Your task to perform on an android device: check out phone information Image 0: 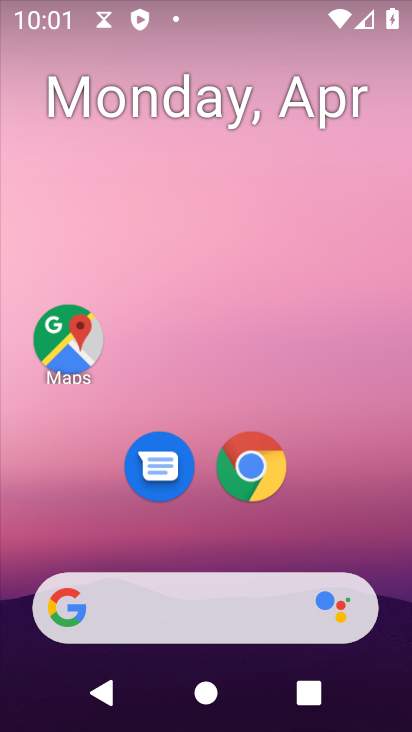
Step 0: drag from (233, 553) to (266, 87)
Your task to perform on an android device: check out phone information Image 1: 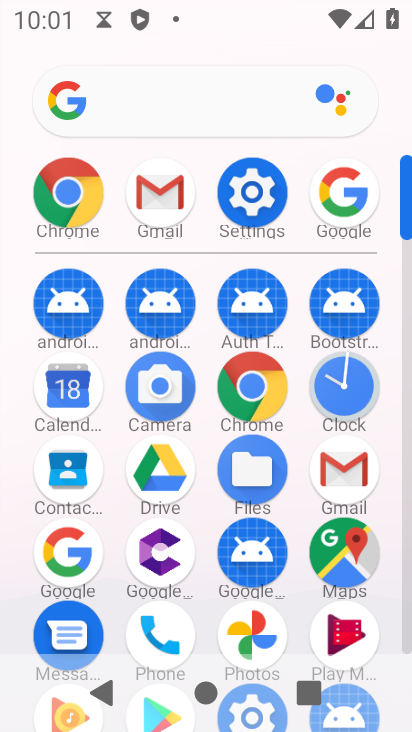
Step 1: click (239, 194)
Your task to perform on an android device: check out phone information Image 2: 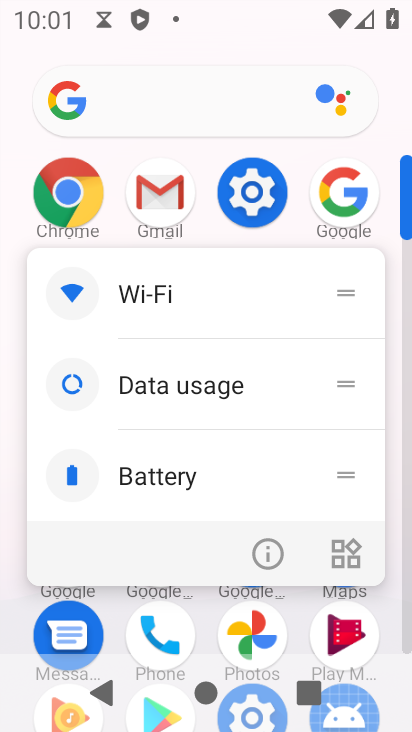
Step 2: click (259, 226)
Your task to perform on an android device: check out phone information Image 3: 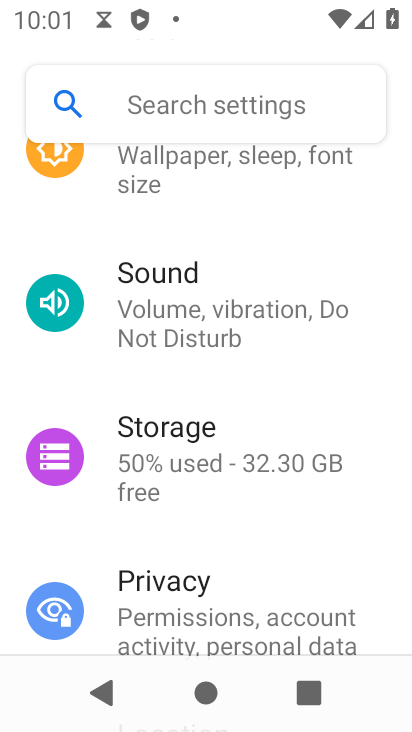
Step 3: drag from (173, 506) to (224, 378)
Your task to perform on an android device: check out phone information Image 4: 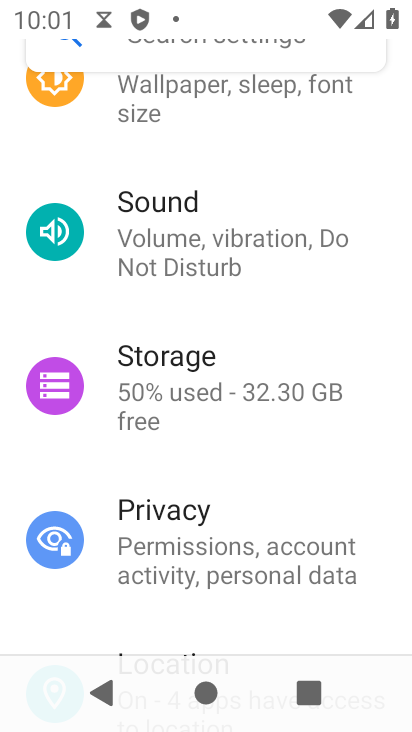
Step 4: drag from (229, 518) to (280, 406)
Your task to perform on an android device: check out phone information Image 5: 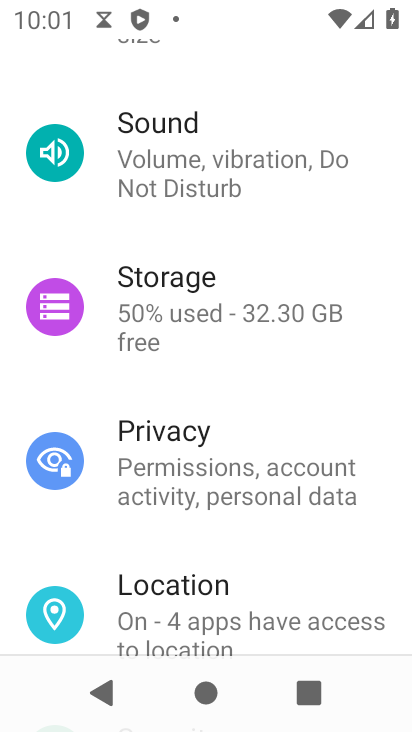
Step 5: drag from (227, 546) to (243, 390)
Your task to perform on an android device: check out phone information Image 6: 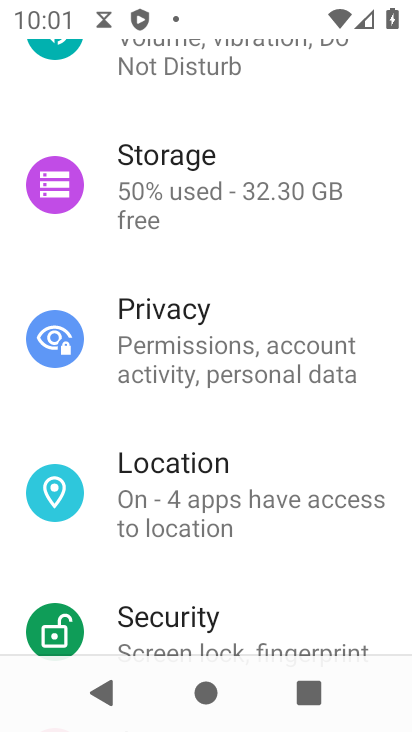
Step 6: drag from (225, 600) to (279, 451)
Your task to perform on an android device: check out phone information Image 7: 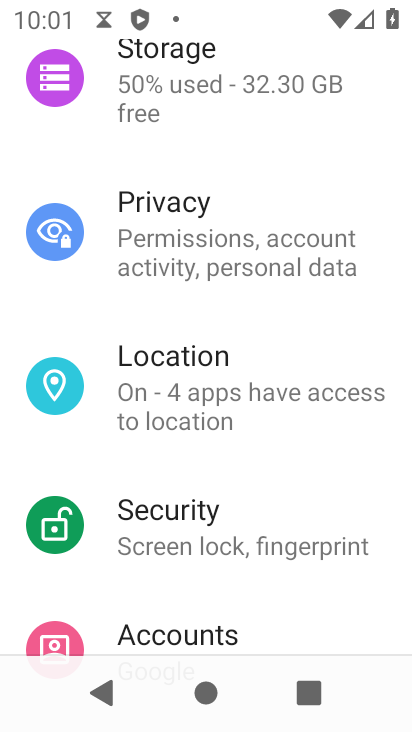
Step 7: drag from (239, 586) to (254, 413)
Your task to perform on an android device: check out phone information Image 8: 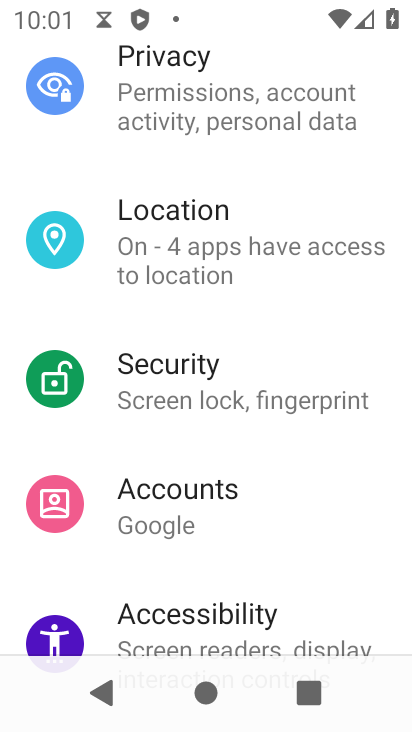
Step 8: drag from (243, 577) to (273, 400)
Your task to perform on an android device: check out phone information Image 9: 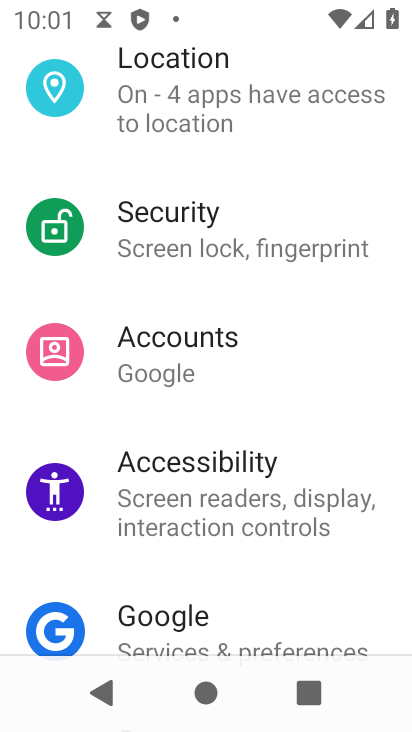
Step 9: drag from (221, 593) to (302, 435)
Your task to perform on an android device: check out phone information Image 10: 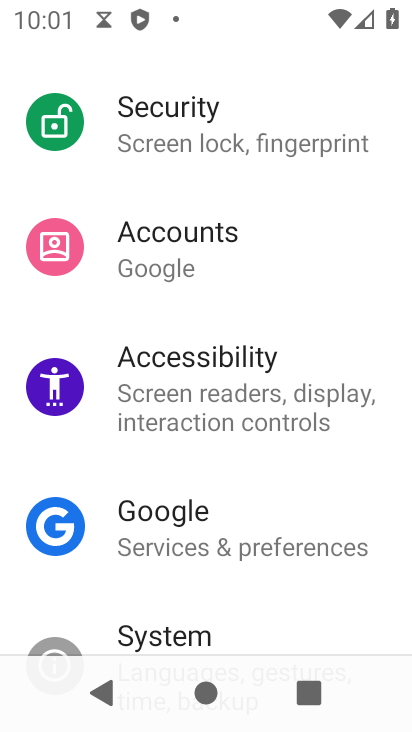
Step 10: drag from (245, 600) to (295, 475)
Your task to perform on an android device: check out phone information Image 11: 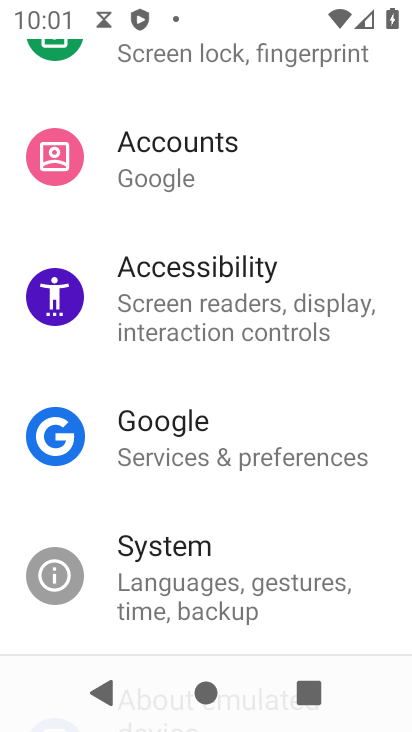
Step 11: drag from (259, 550) to (317, 454)
Your task to perform on an android device: check out phone information Image 12: 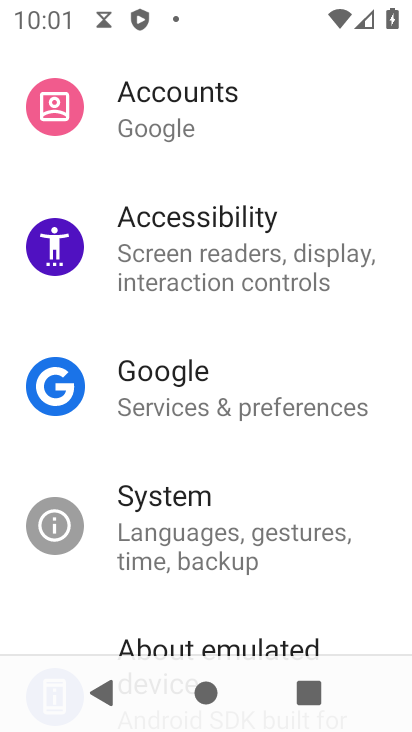
Step 12: drag from (223, 612) to (327, 458)
Your task to perform on an android device: check out phone information Image 13: 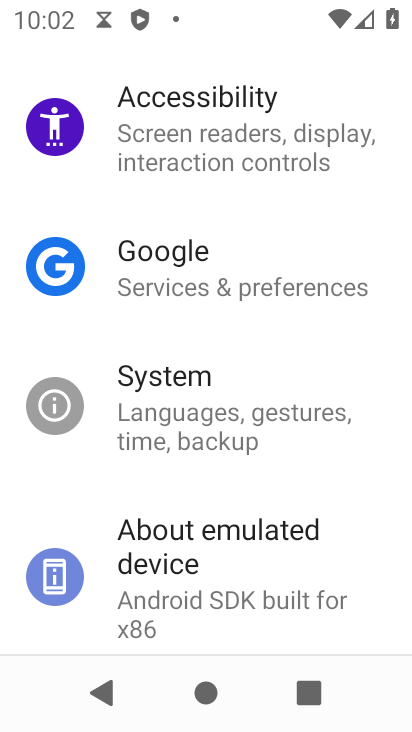
Step 13: click (255, 530)
Your task to perform on an android device: check out phone information Image 14: 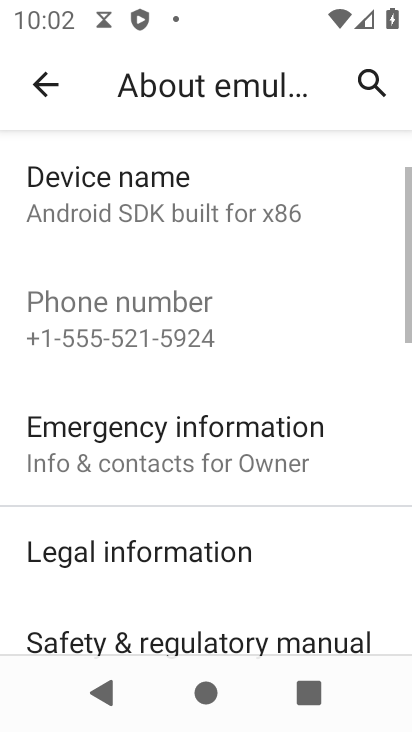
Step 14: task complete